Your task to perform on an android device: turn off priority inbox in the gmail app Image 0: 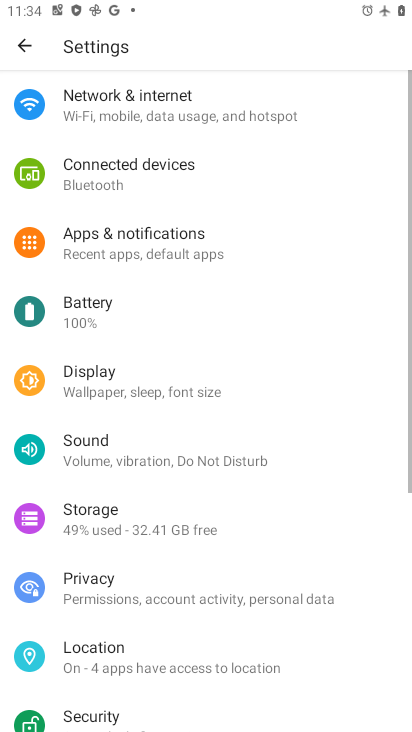
Step 0: press home button
Your task to perform on an android device: turn off priority inbox in the gmail app Image 1: 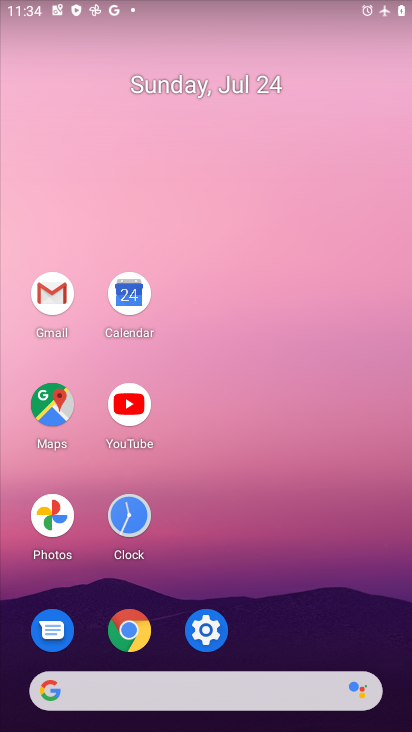
Step 1: click (45, 294)
Your task to perform on an android device: turn off priority inbox in the gmail app Image 2: 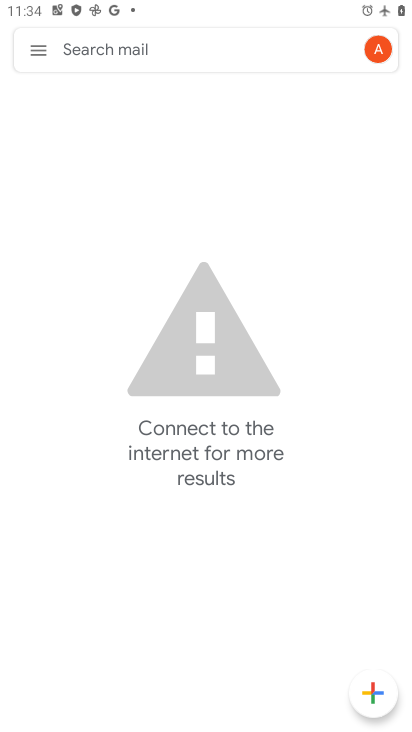
Step 2: click (33, 43)
Your task to perform on an android device: turn off priority inbox in the gmail app Image 3: 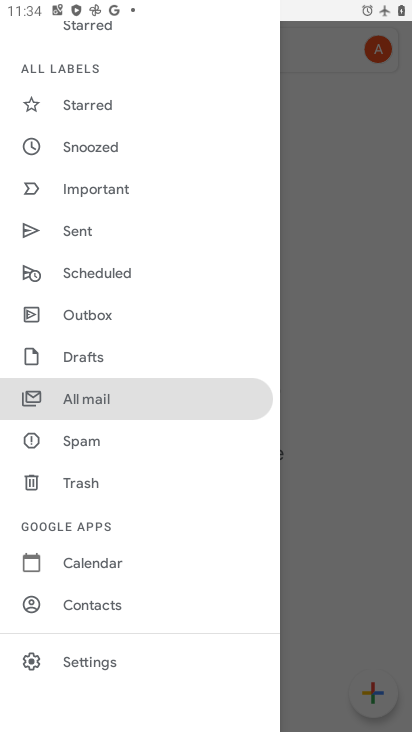
Step 3: click (72, 661)
Your task to perform on an android device: turn off priority inbox in the gmail app Image 4: 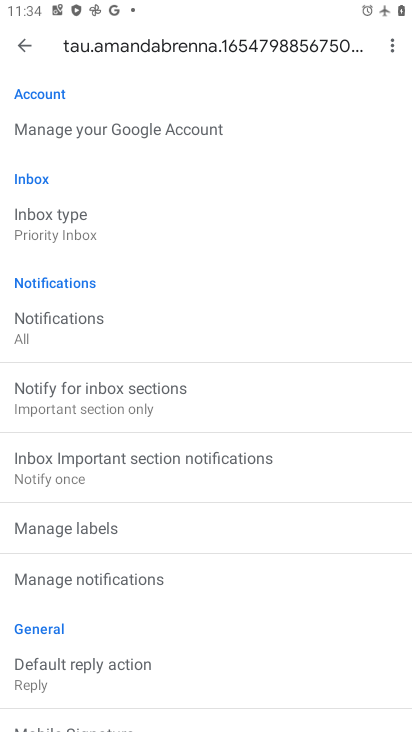
Step 4: click (53, 225)
Your task to perform on an android device: turn off priority inbox in the gmail app Image 5: 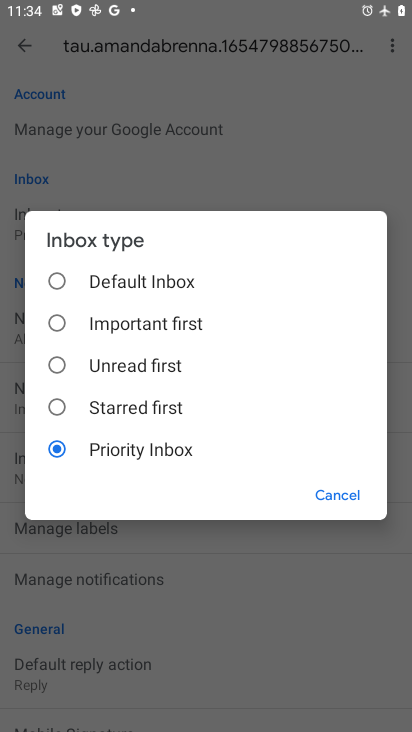
Step 5: click (54, 279)
Your task to perform on an android device: turn off priority inbox in the gmail app Image 6: 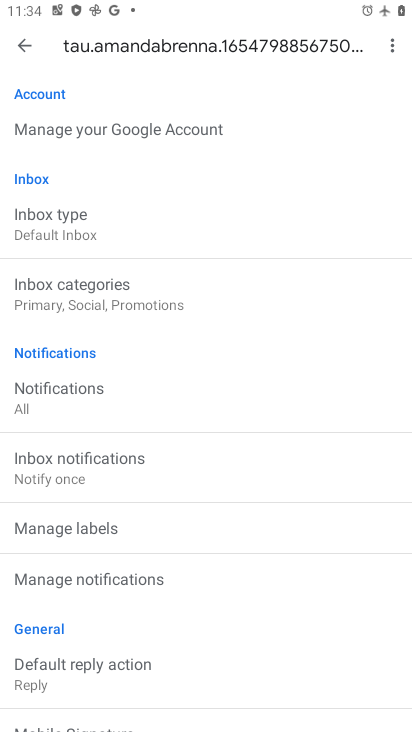
Step 6: task complete